Your task to perform on an android device: turn on wifi Image 0: 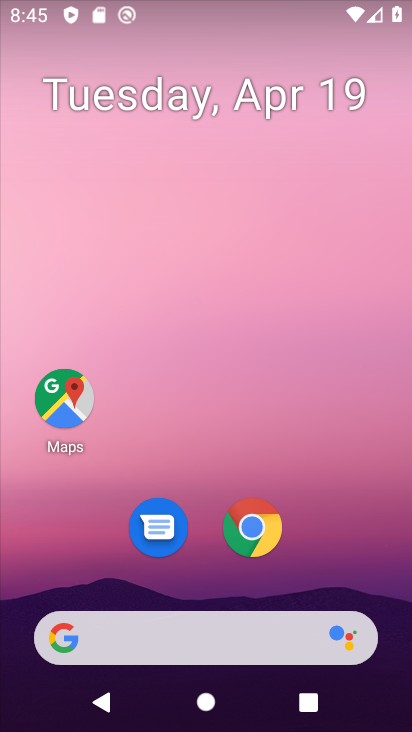
Step 0: drag from (379, 571) to (290, 58)
Your task to perform on an android device: turn on wifi Image 1: 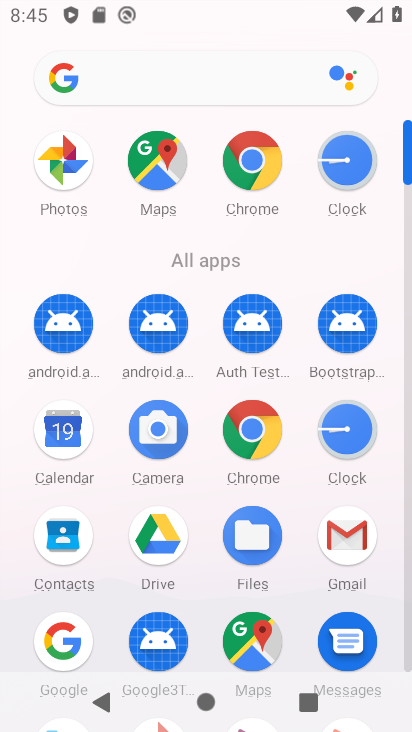
Step 1: task complete